Your task to perform on an android device: Open battery settings Image 0: 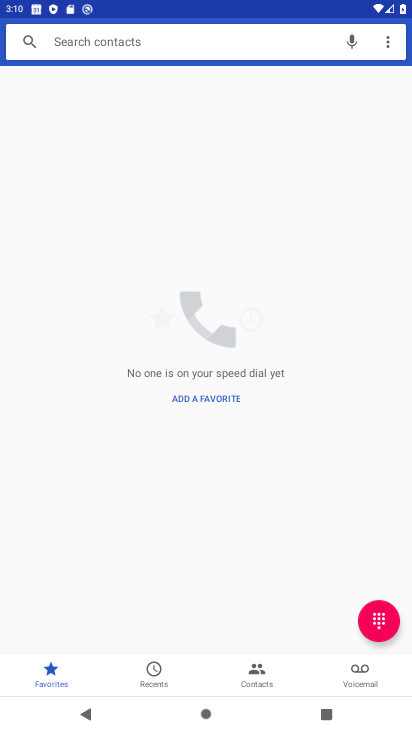
Step 0: press home button
Your task to perform on an android device: Open battery settings Image 1: 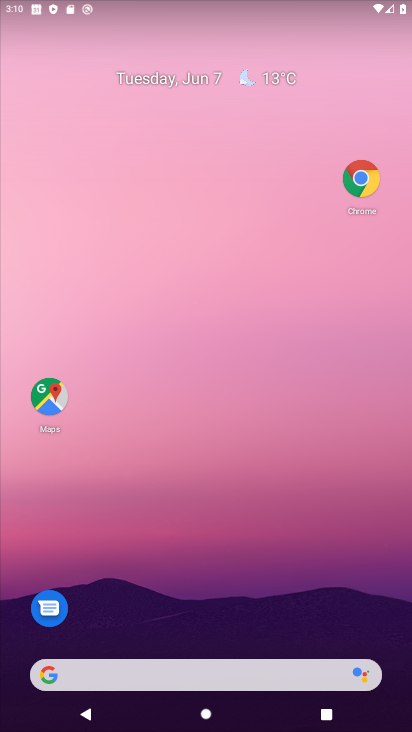
Step 1: drag from (150, 646) to (241, 220)
Your task to perform on an android device: Open battery settings Image 2: 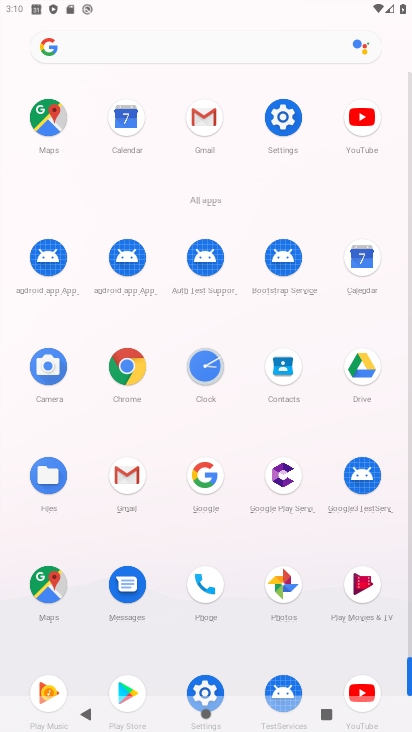
Step 2: drag from (160, 602) to (235, 340)
Your task to perform on an android device: Open battery settings Image 3: 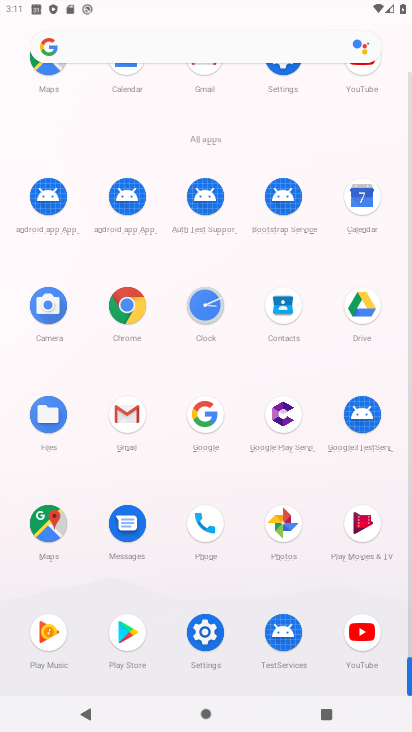
Step 3: click (209, 648)
Your task to perform on an android device: Open battery settings Image 4: 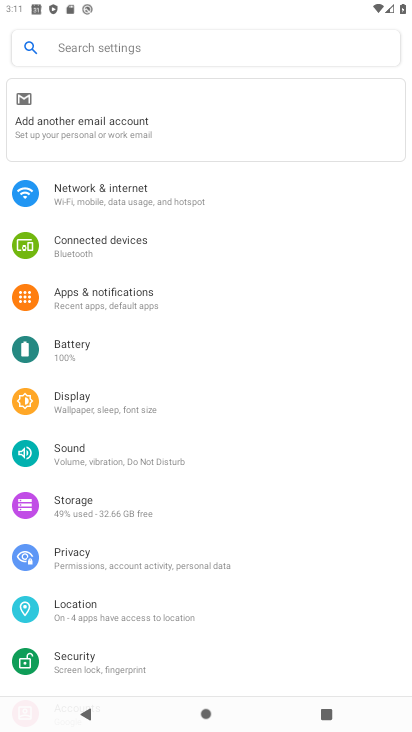
Step 4: click (95, 359)
Your task to perform on an android device: Open battery settings Image 5: 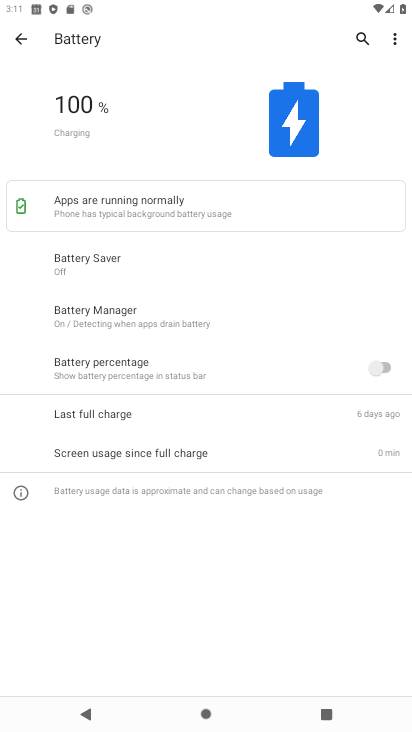
Step 5: task complete